Your task to perform on an android device: install app "DuckDuckGo Privacy Browser" Image 0: 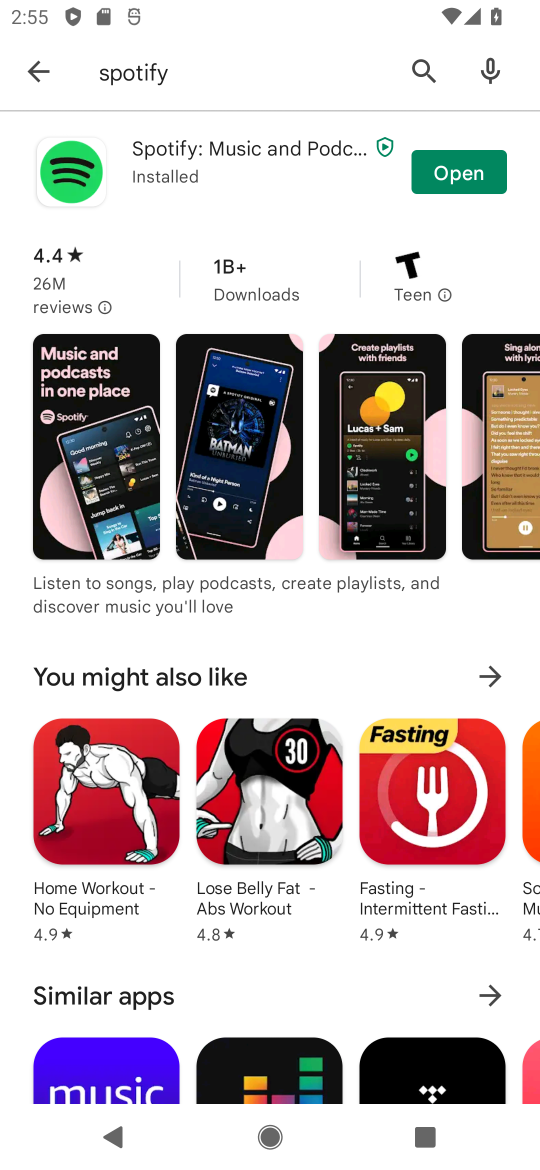
Step 0: press home button
Your task to perform on an android device: install app "DuckDuckGo Privacy Browser" Image 1: 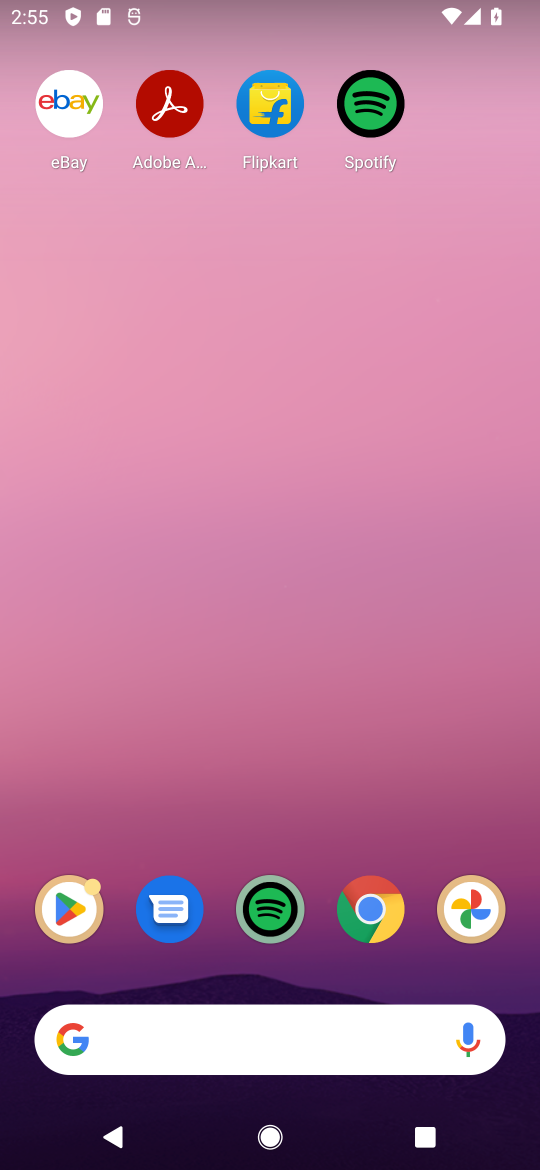
Step 1: click (79, 899)
Your task to perform on an android device: install app "DuckDuckGo Privacy Browser" Image 2: 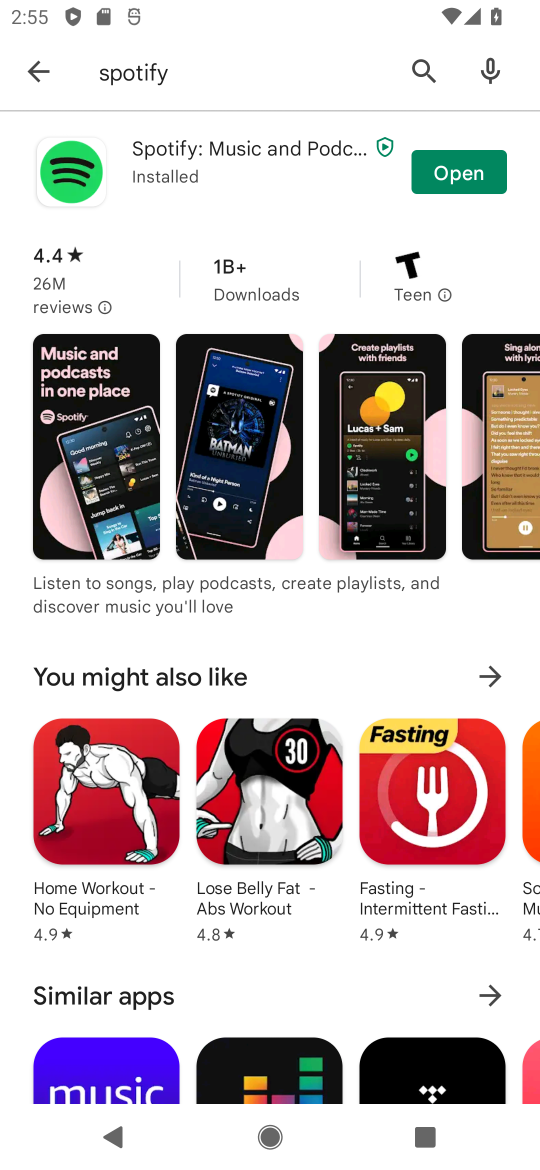
Step 2: click (419, 67)
Your task to perform on an android device: install app "DuckDuckGo Privacy Browser" Image 3: 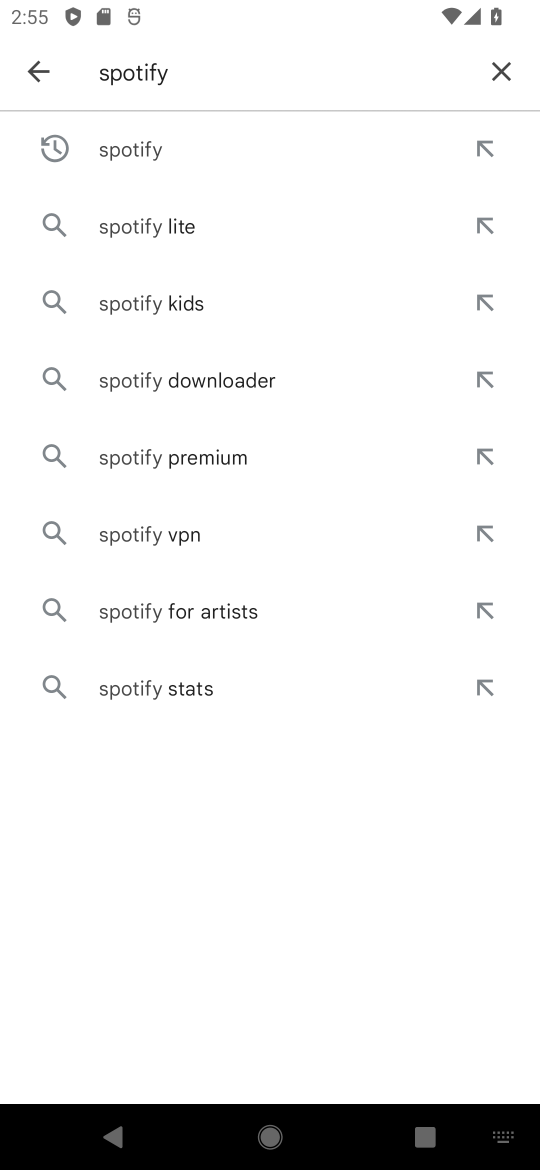
Step 3: click (508, 69)
Your task to perform on an android device: install app "DuckDuckGo Privacy Browser" Image 4: 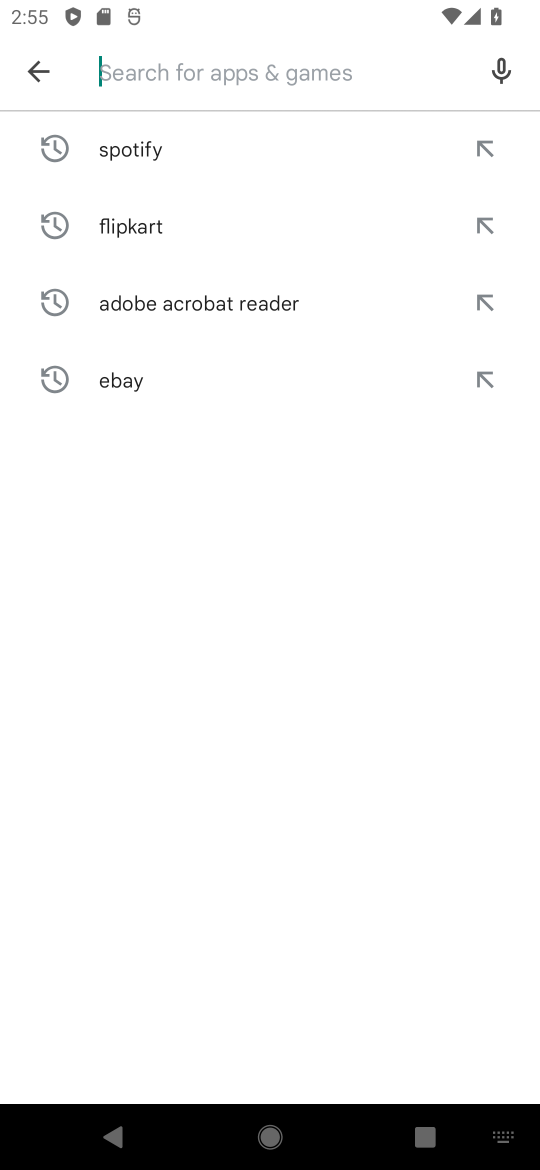
Step 4: type "DuckDuckGo Privacy Browser"
Your task to perform on an android device: install app "DuckDuckGo Privacy Browser" Image 5: 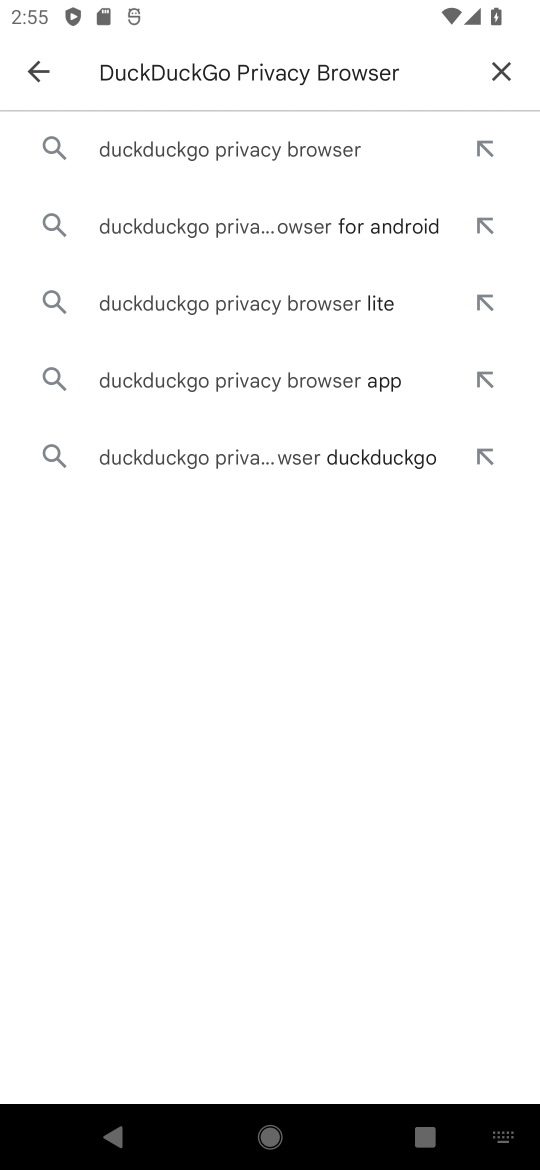
Step 5: click (260, 151)
Your task to perform on an android device: install app "DuckDuckGo Privacy Browser" Image 6: 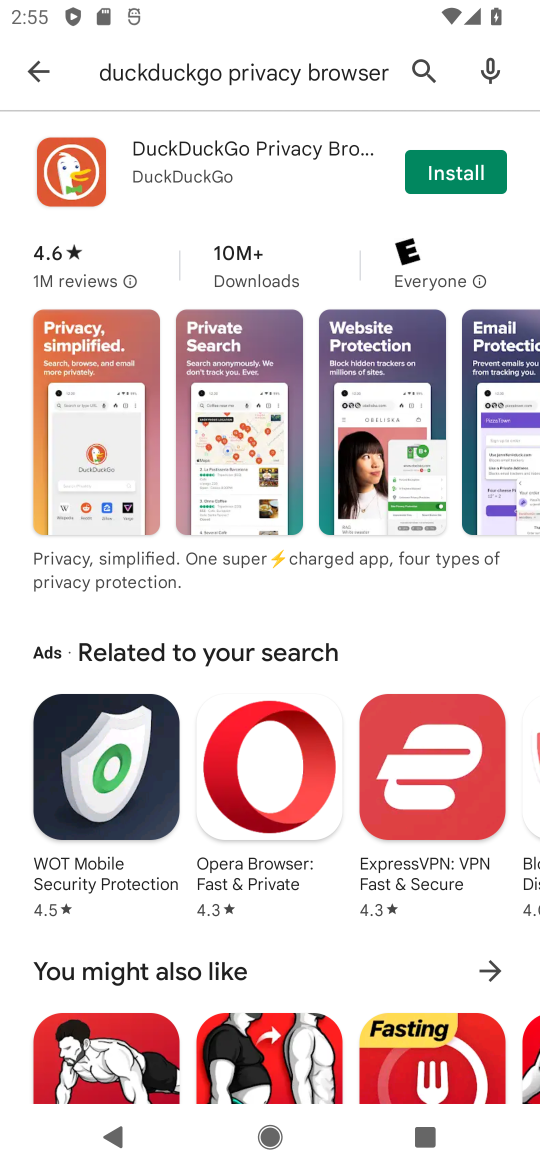
Step 6: click (436, 177)
Your task to perform on an android device: install app "DuckDuckGo Privacy Browser" Image 7: 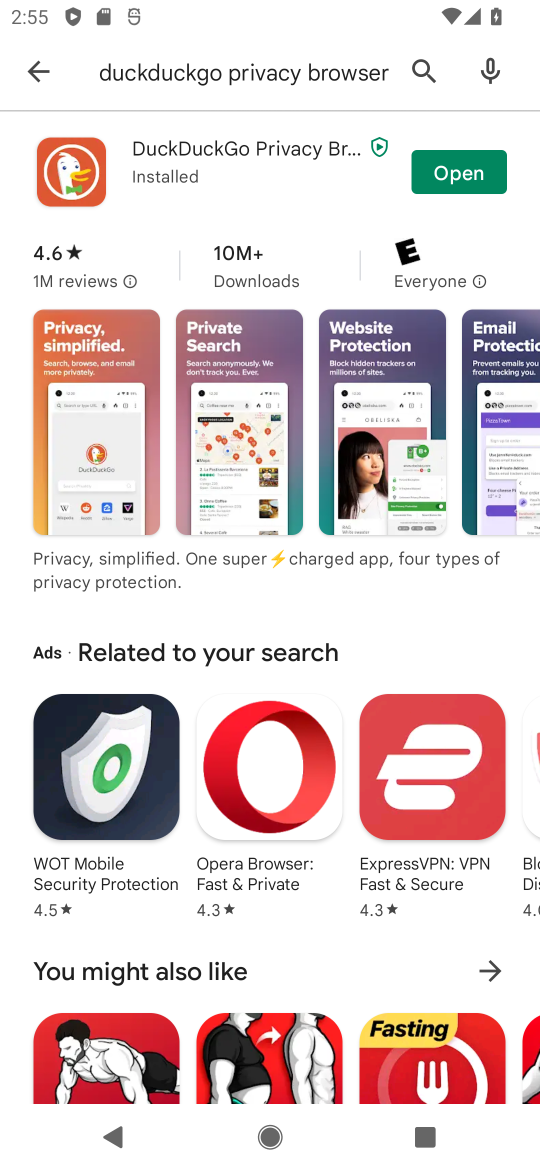
Step 7: task complete